Your task to perform on an android device: Open the stopwatch Image 0: 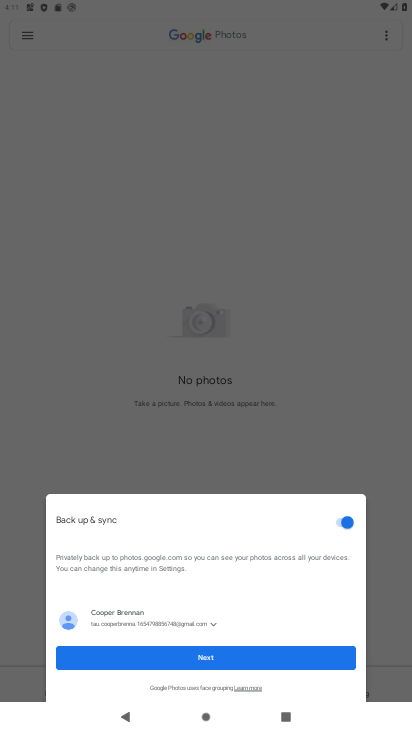
Step 0: press home button
Your task to perform on an android device: Open the stopwatch Image 1: 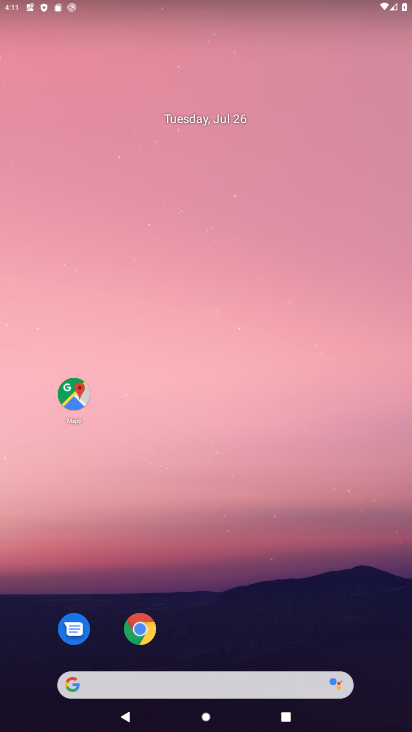
Step 1: drag from (358, 600) to (328, 11)
Your task to perform on an android device: Open the stopwatch Image 2: 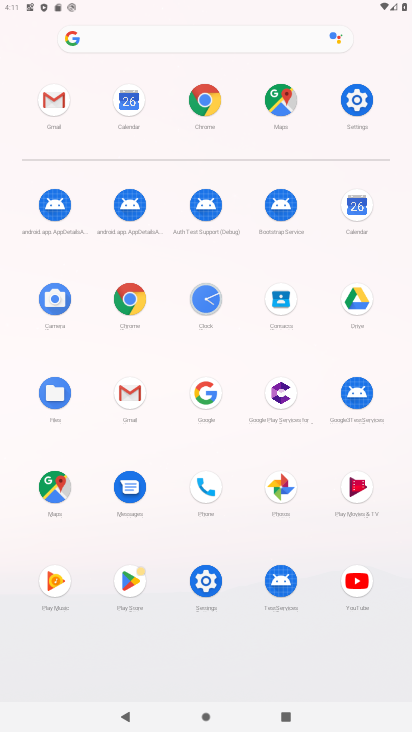
Step 2: click (212, 292)
Your task to perform on an android device: Open the stopwatch Image 3: 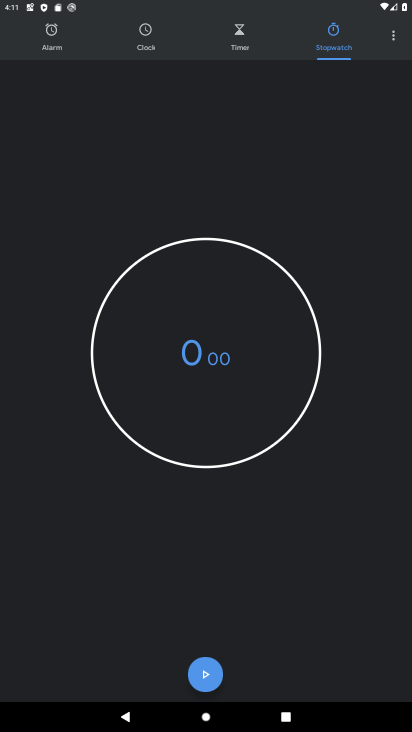
Step 3: task complete